Your task to perform on an android device: What is the recent news? Image 0: 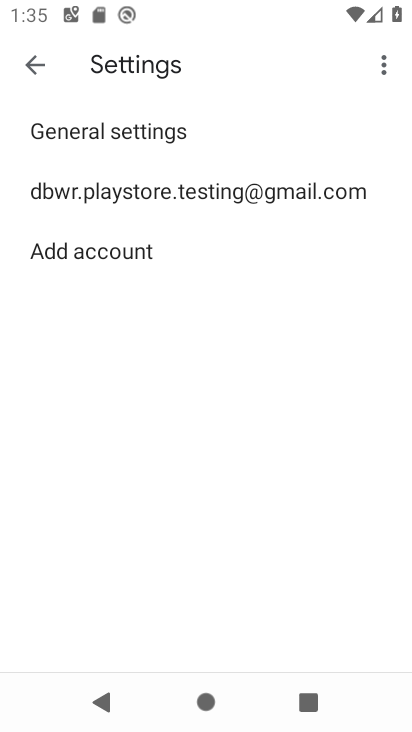
Step 0: press home button
Your task to perform on an android device: What is the recent news? Image 1: 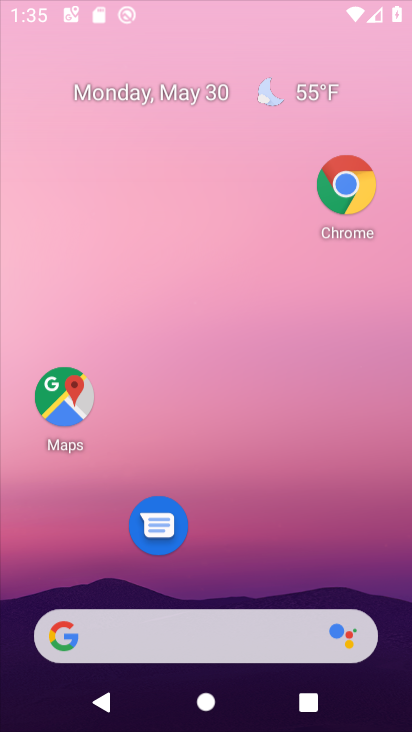
Step 1: drag from (163, 511) to (89, 20)
Your task to perform on an android device: What is the recent news? Image 2: 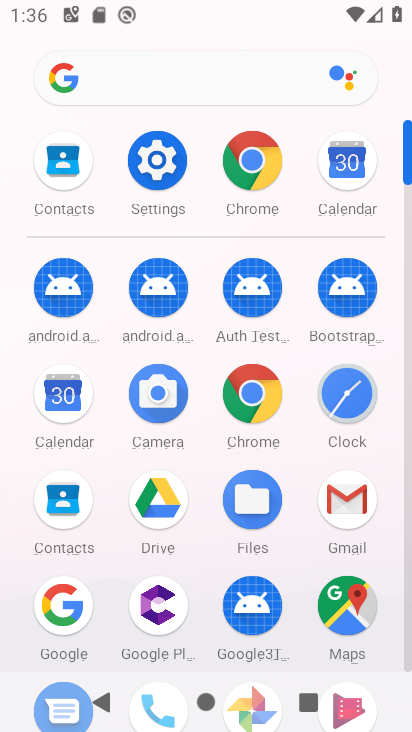
Step 2: click (172, 67)
Your task to perform on an android device: What is the recent news? Image 3: 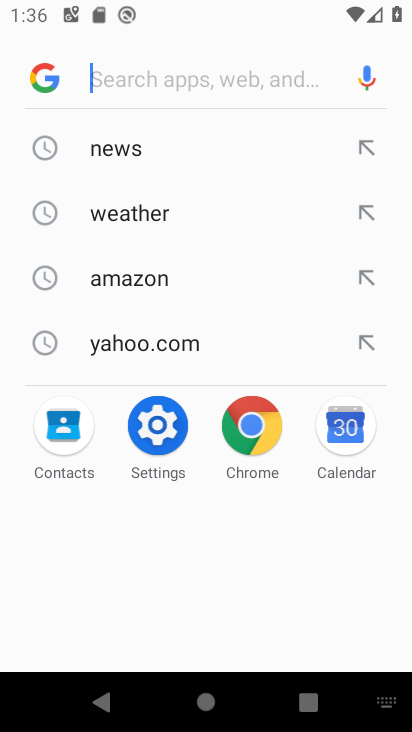
Step 3: type " recent news?"
Your task to perform on an android device: What is the recent news? Image 4: 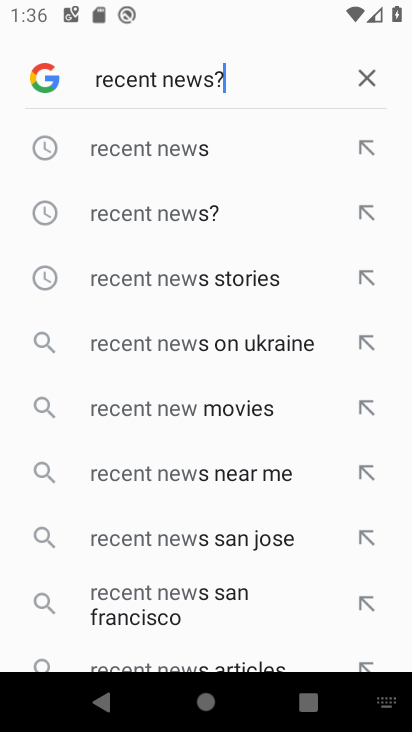
Step 4: type ""
Your task to perform on an android device: What is the recent news? Image 5: 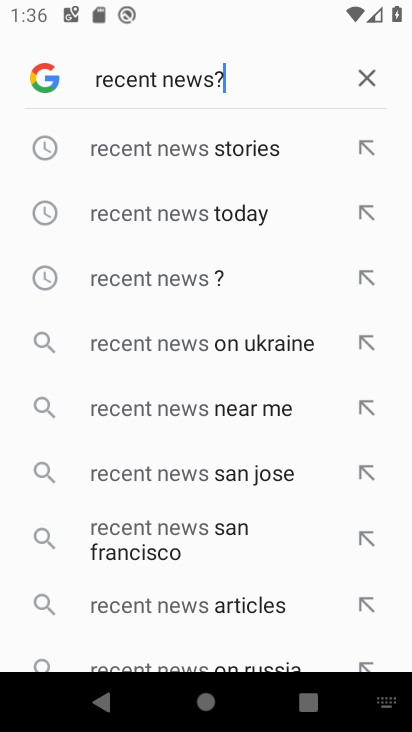
Step 5: click (110, 274)
Your task to perform on an android device: What is the recent news? Image 6: 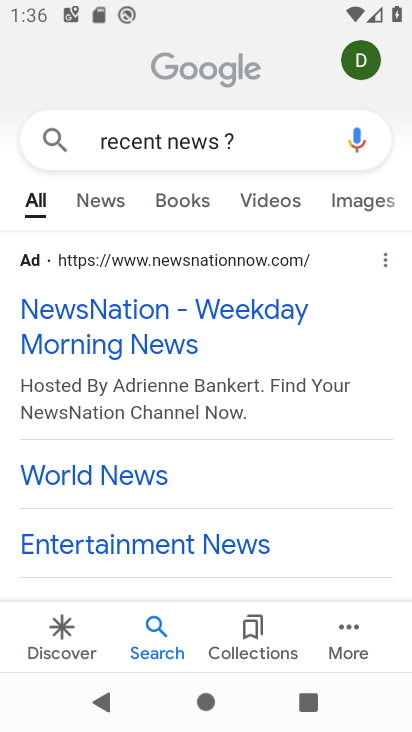
Step 6: drag from (240, 444) to (283, 132)
Your task to perform on an android device: What is the recent news? Image 7: 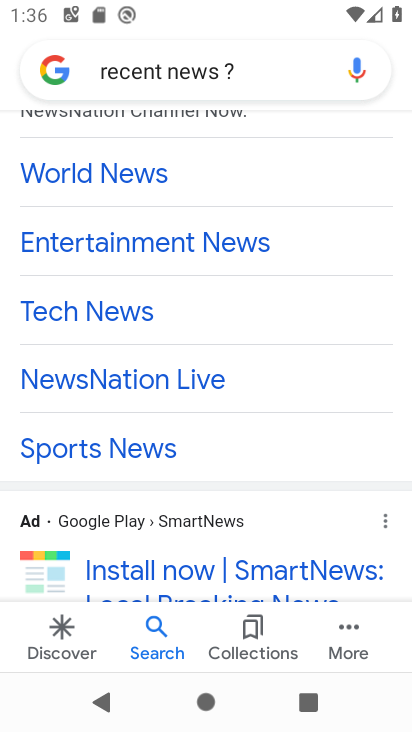
Step 7: drag from (267, 364) to (309, 694)
Your task to perform on an android device: What is the recent news? Image 8: 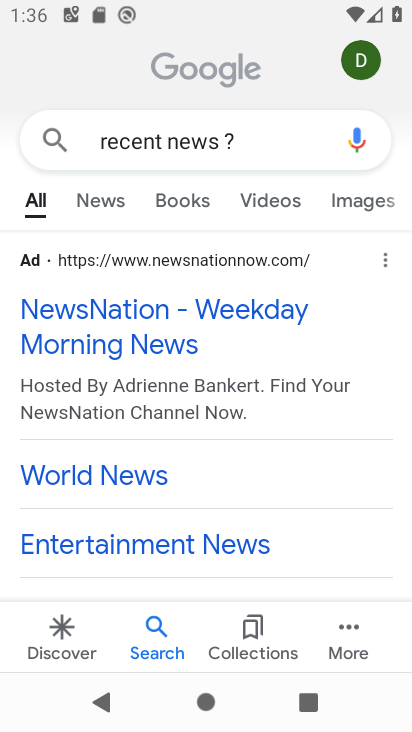
Step 8: drag from (262, 453) to (200, 2)
Your task to perform on an android device: What is the recent news? Image 9: 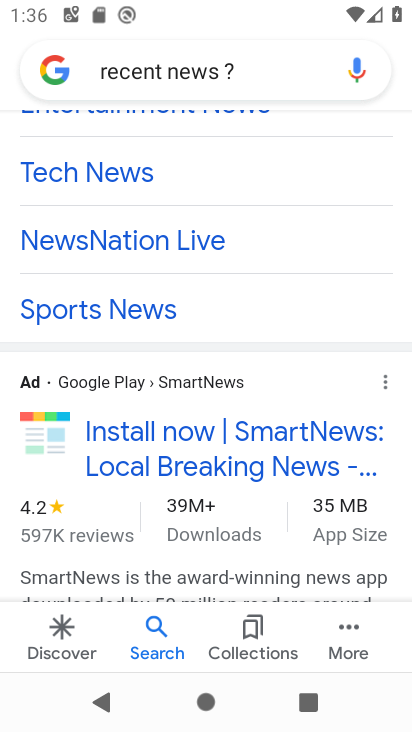
Step 9: drag from (236, 570) to (320, 20)
Your task to perform on an android device: What is the recent news? Image 10: 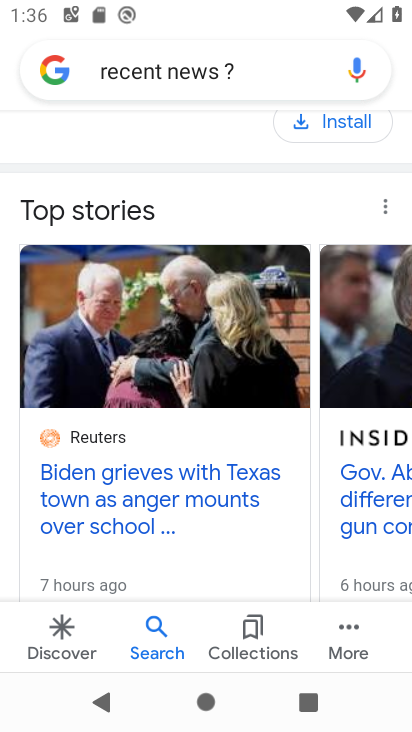
Step 10: drag from (237, 493) to (304, 90)
Your task to perform on an android device: What is the recent news? Image 11: 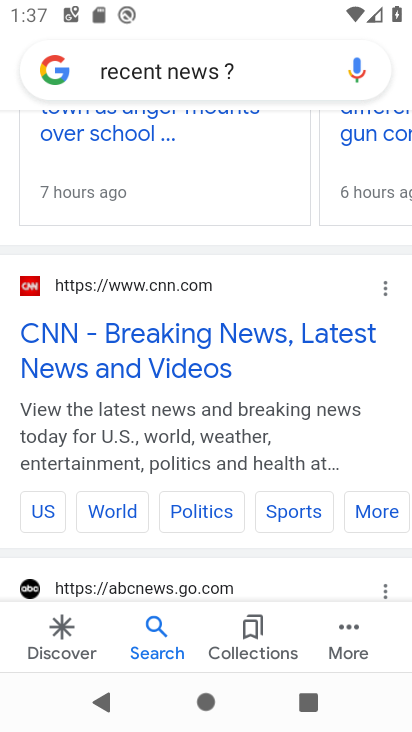
Step 11: click (152, 373)
Your task to perform on an android device: What is the recent news? Image 12: 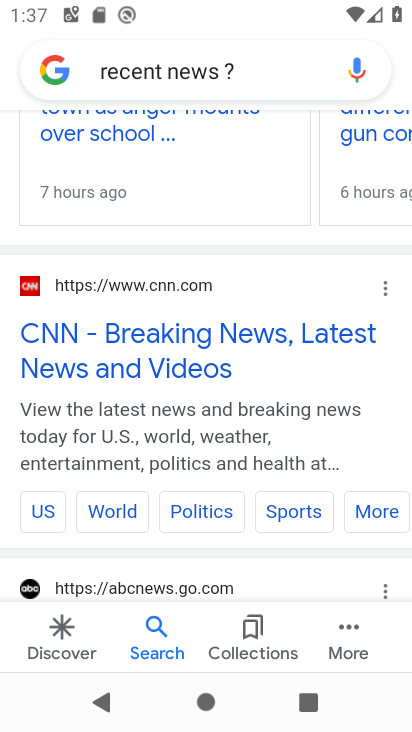
Step 12: task complete